Your task to perform on an android device: change the clock style Image 0: 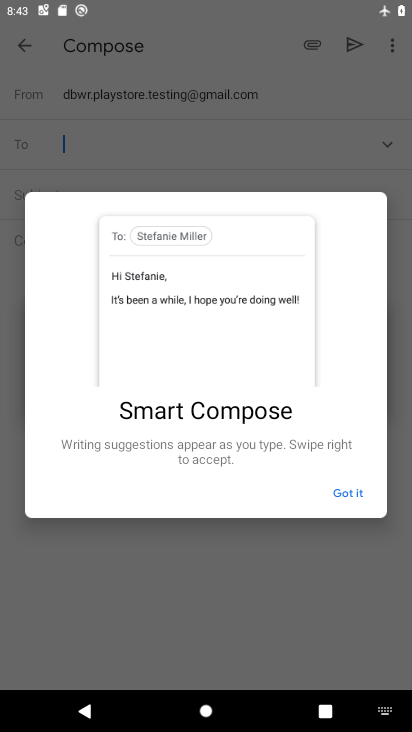
Step 0: press home button
Your task to perform on an android device: change the clock style Image 1: 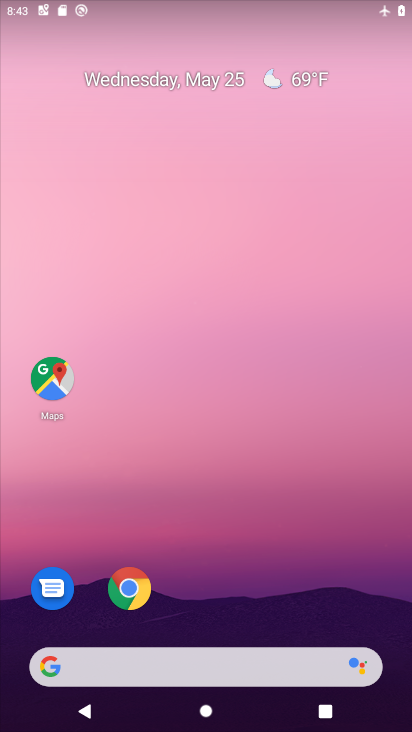
Step 1: drag from (324, 549) to (326, 205)
Your task to perform on an android device: change the clock style Image 2: 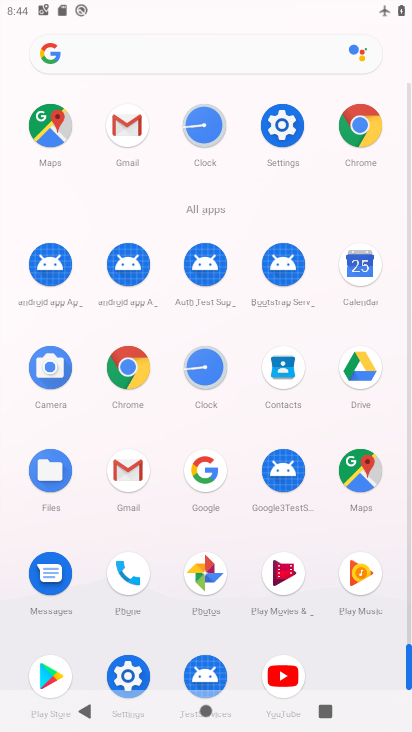
Step 2: click (222, 369)
Your task to perform on an android device: change the clock style Image 3: 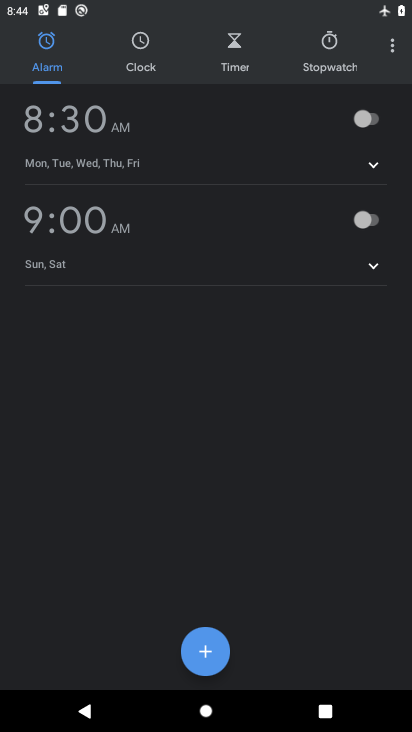
Step 3: click (399, 65)
Your task to perform on an android device: change the clock style Image 4: 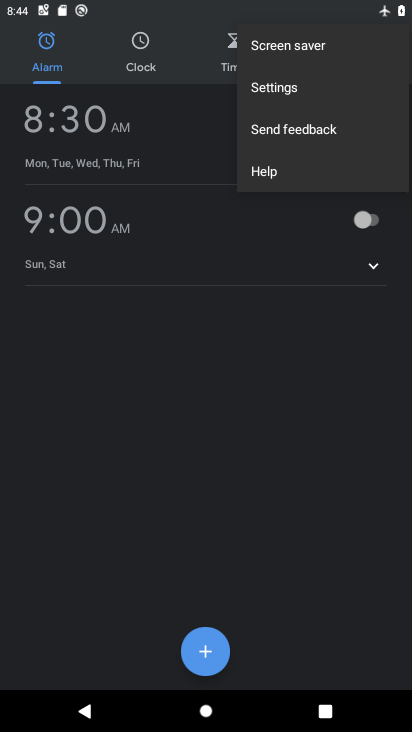
Step 4: click (389, 74)
Your task to perform on an android device: change the clock style Image 5: 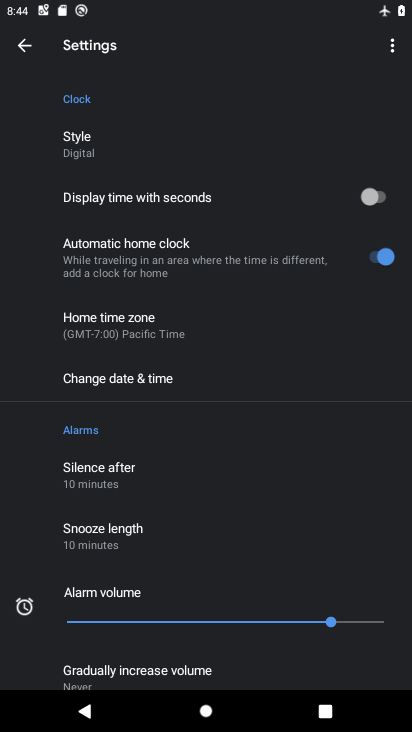
Step 5: click (74, 154)
Your task to perform on an android device: change the clock style Image 6: 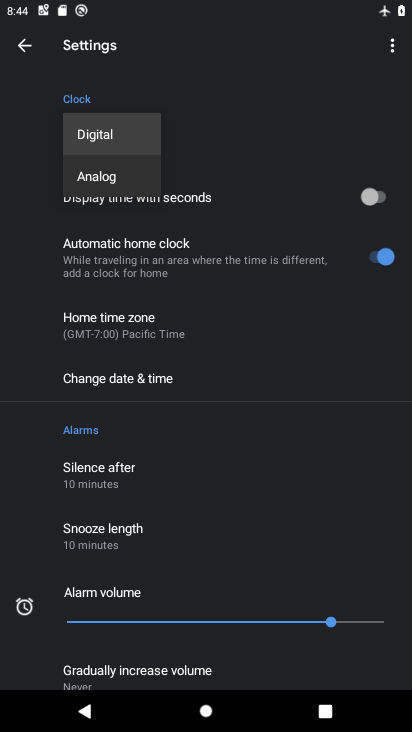
Step 6: click (113, 143)
Your task to perform on an android device: change the clock style Image 7: 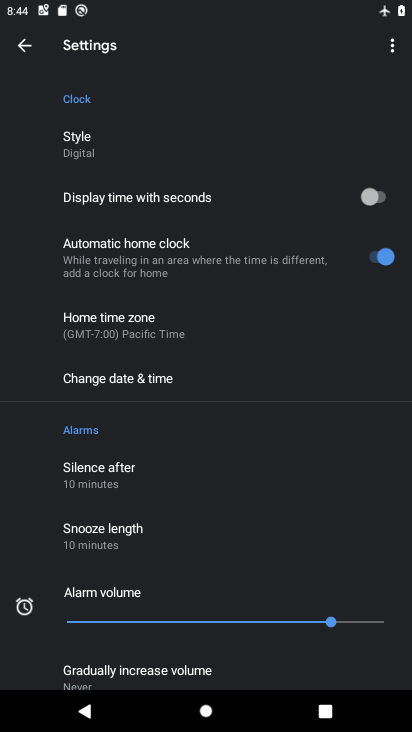
Step 7: task complete